Your task to perform on an android device: Do I have any events this weekend? Image 0: 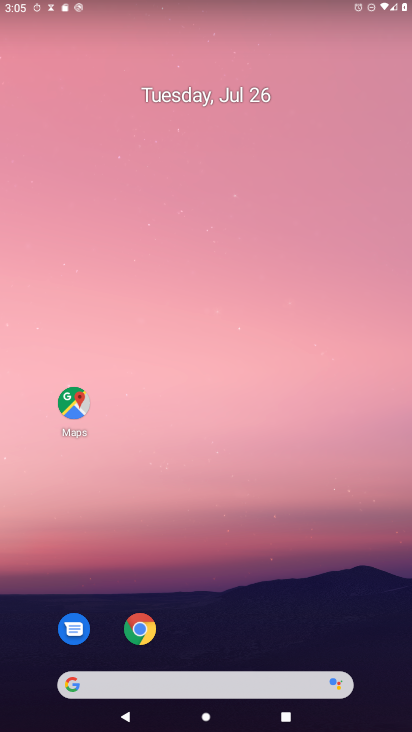
Step 0: drag from (276, 686) to (290, 13)
Your task to perform on an android device: Do I have any events this weekend? Image 1: 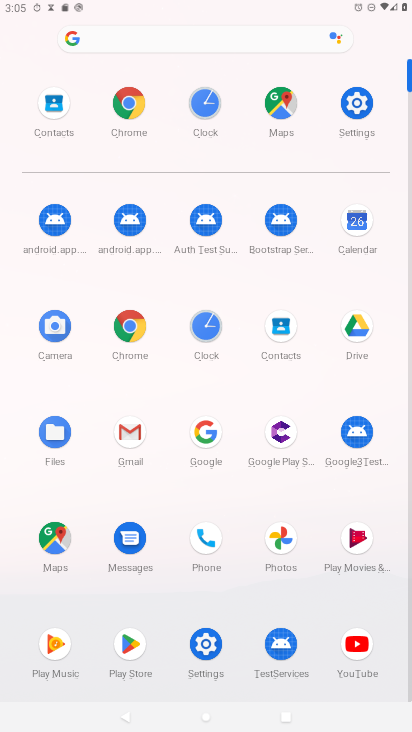
Step 1: click (361, 224)
Your task to perform on an android device: Do I have any events this weekend? Image 2: 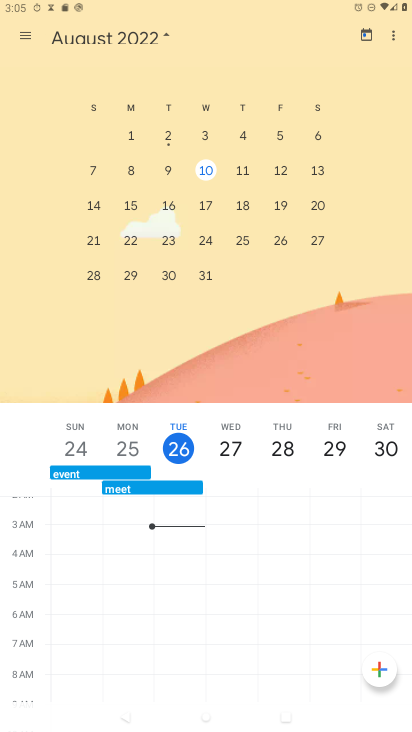
Step 2: drag from (37, 236) to (342, 220)
Your task to perform on an android device: Do I have any events this weekend? Image 3: 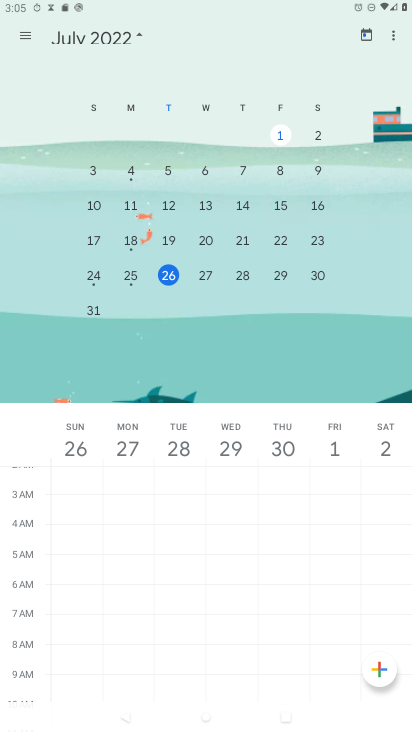
Step 3: drag from (313, 226) to (67, 239)
Your task to perform on an android device: Do I have any events this weekend? Image 4: 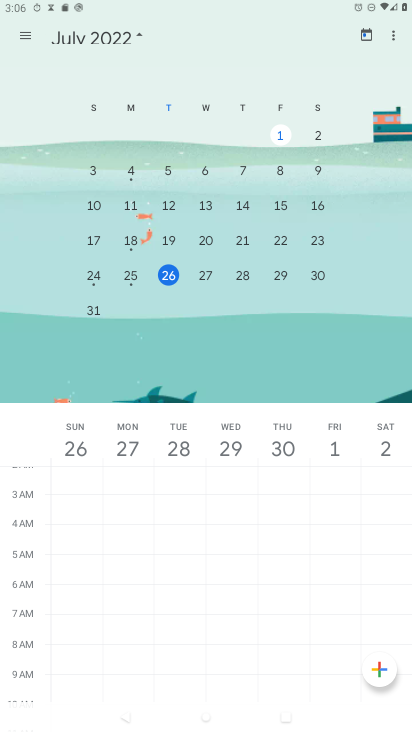
Step 4: click (320, 274)
Your task to perform on an android device: Do I have any events this weekend? Image 5: 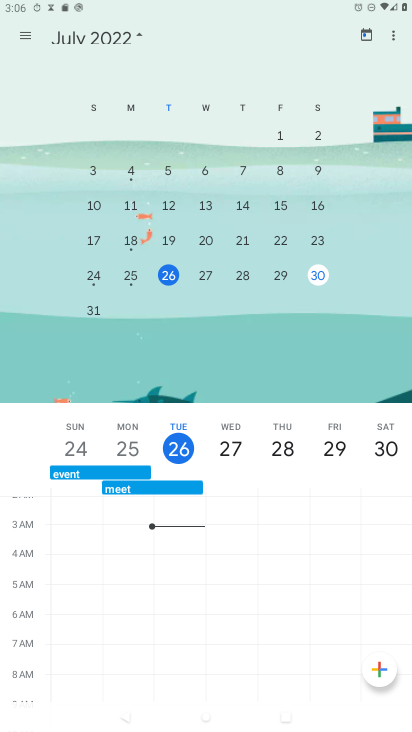
Step 5: task complete